Your task to perform on an android device: clear history in the chrome app Image 0: 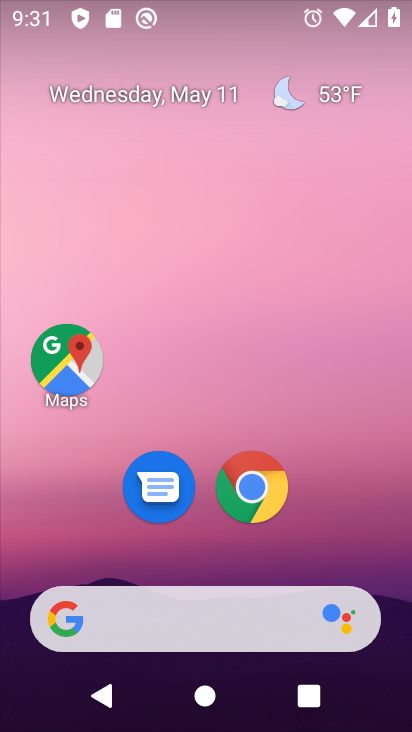
Step 0: click (250, 503)
Your task to perform on an android device: clear history in the chrome app Image 1: 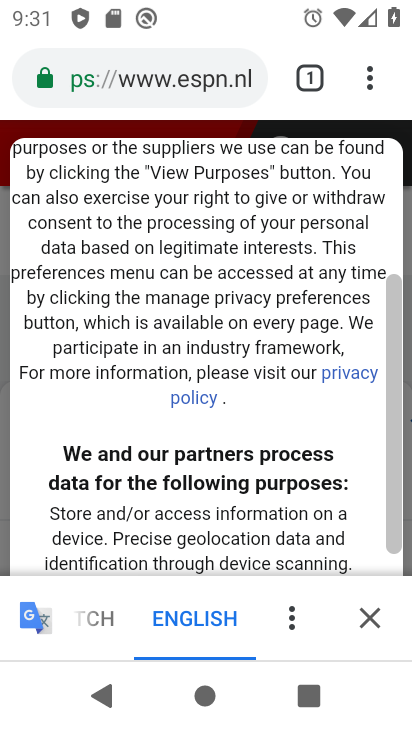
Step 1: drag from (359, 61) to (132, 431)
Your task to perform on an android device: clear history in the chrome app Image 2: 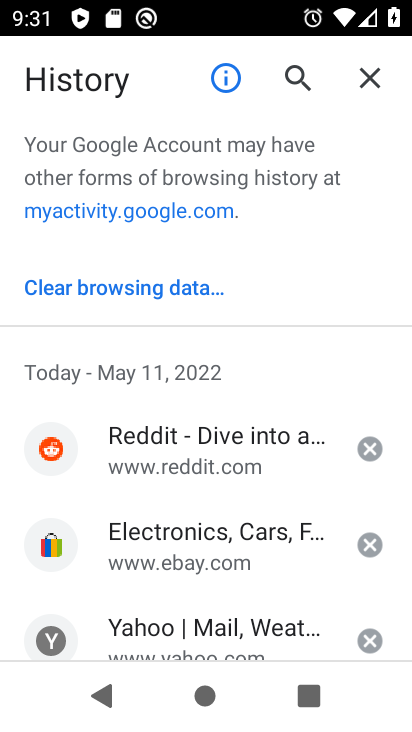
Step 2: click (143, 294)
Your task to perform on an android device: clear history in the chrome app Image 3: 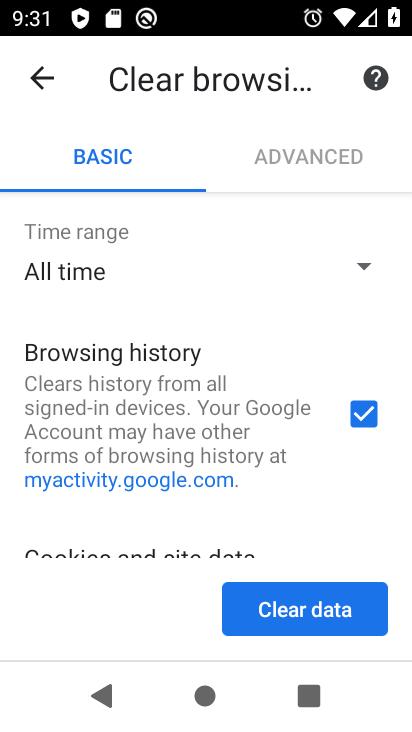
Step 3: drag from (139, 504) to (202, 249)
Your task to perform on an android device: clear history in the chrome app Image 4: 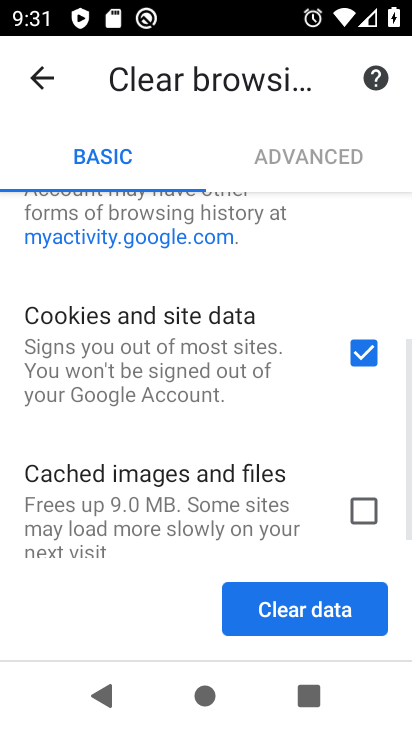
Step 4: click (263, 604)
Your task to perform on an android device: clear history in the chrome app Image 5: 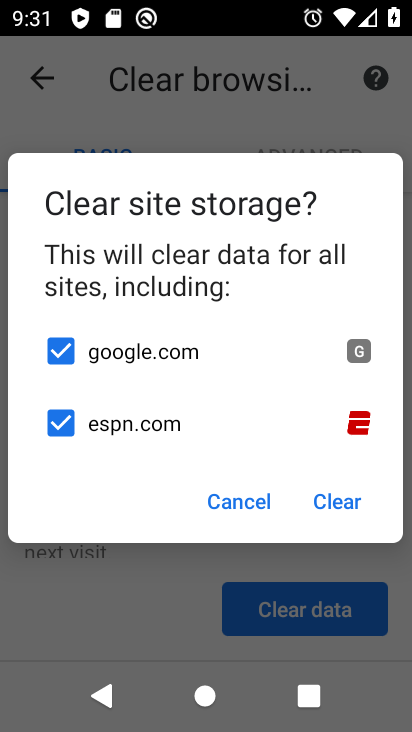
Step 5: click (338, 493)
Your task to perform on an android device: clear history in the chrome app Image 6: 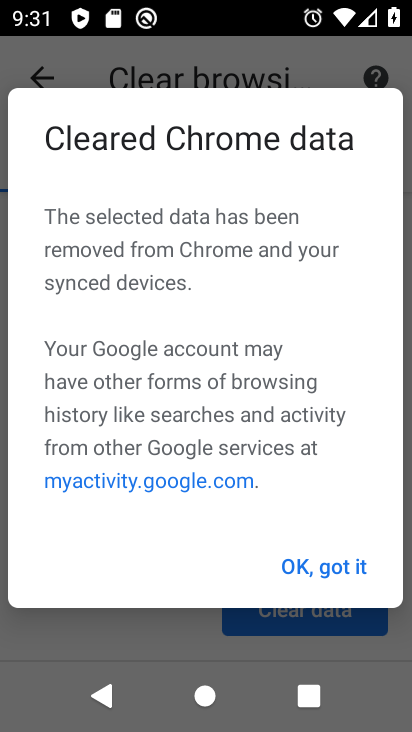
Step 6: click (332, 551)
Your task to perform on an android device: clear history in the chrome app Image 7: 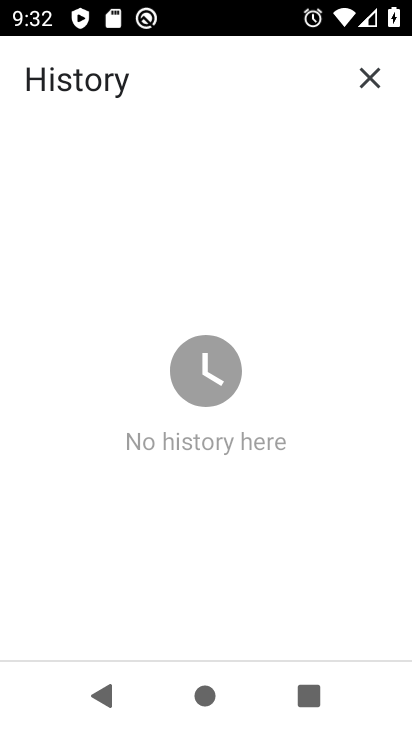
Step 7: task complete